Your task to perform on an android device: check google app version Image 0: 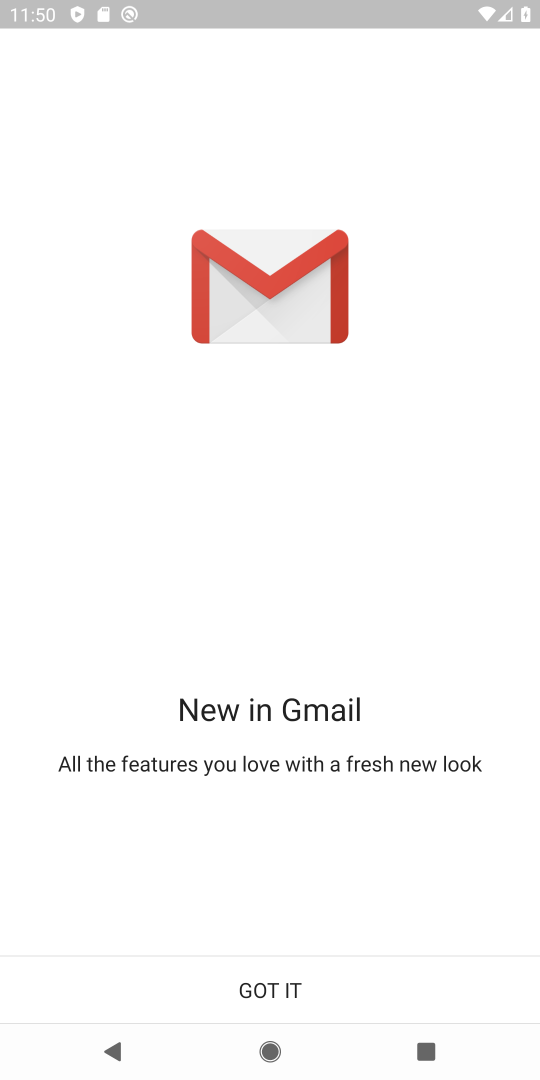
Step 0: press home button
Your task to perform on an android device: check google app version Image 1: 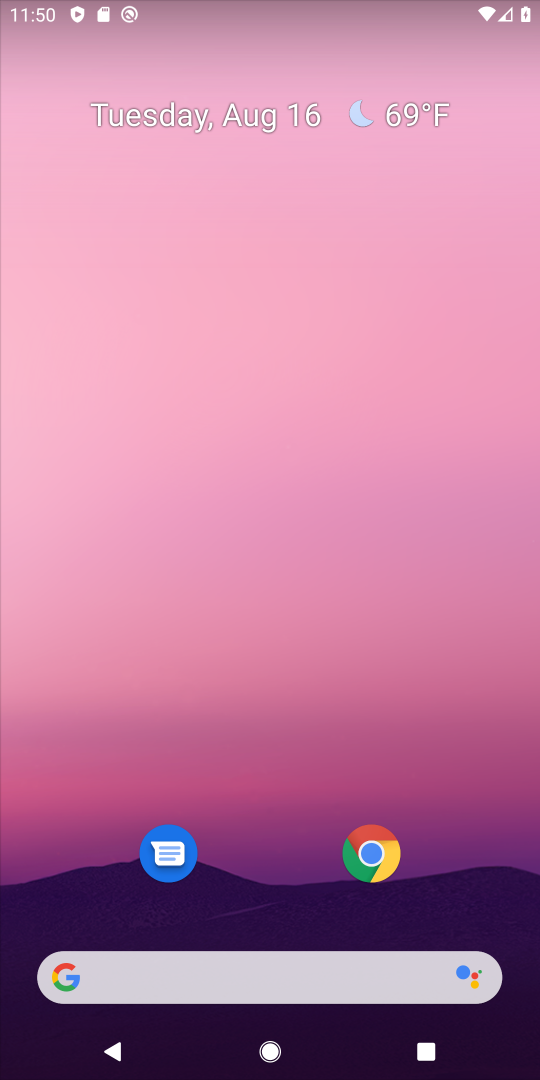
Step 1: drag from (342, 898) to (304, 495)
Your task to perform on an android device: check google app version Image 2: 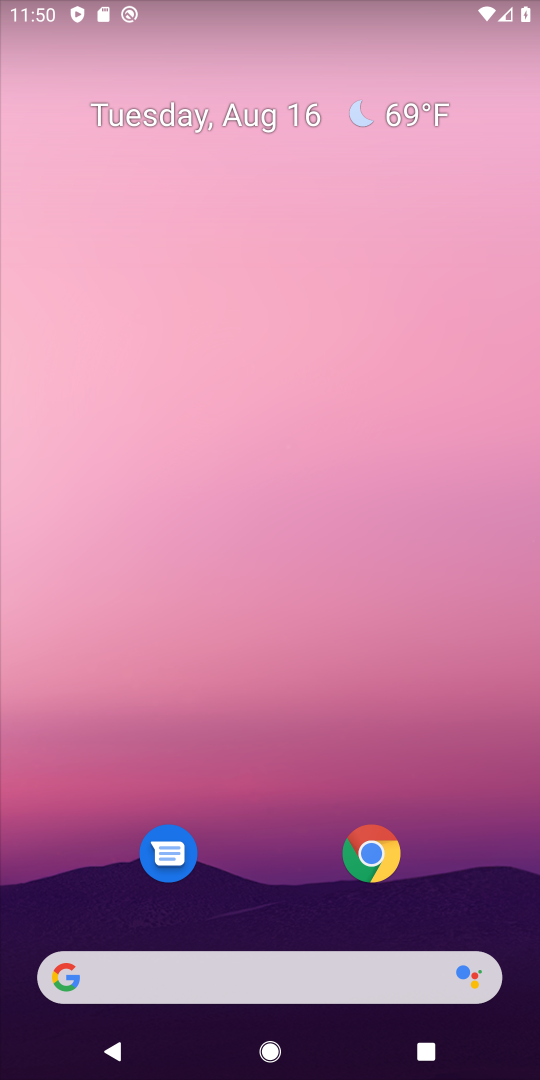
Step 2: drag from (208, 924) to (233, 396)
Your task to perform on an android device: check google app version Image 3: 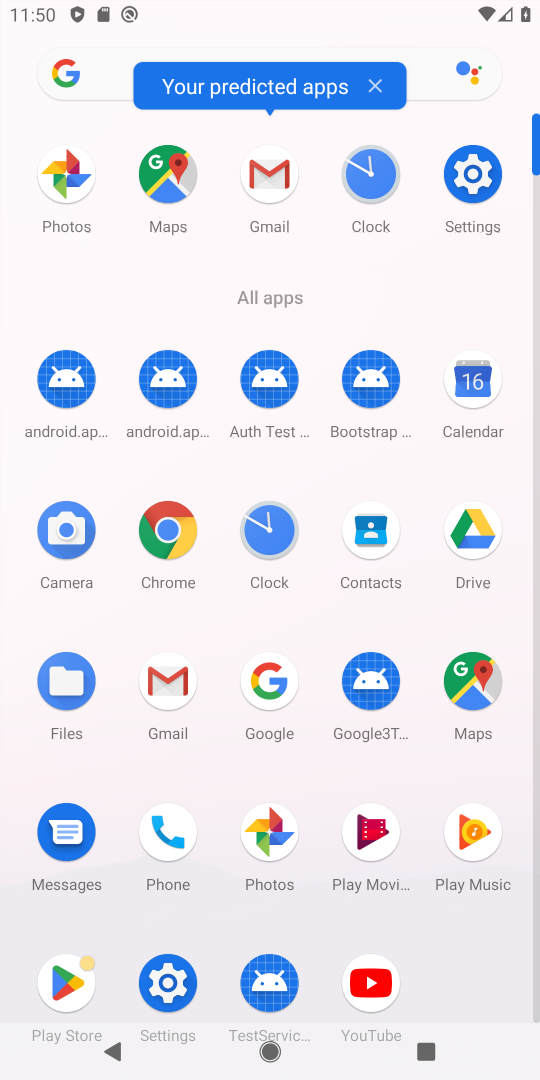
Step 3: click (250, 702)
Your task to perform on an android device: check google app version Image 4: 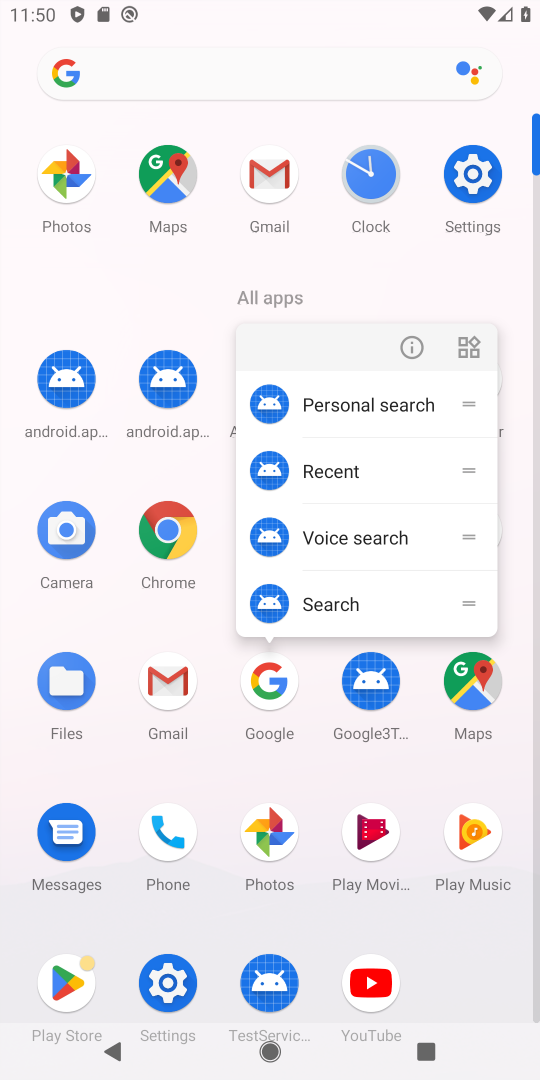
Step 4: click (412, 343)
Your task to perform on an android device: check google app version Image 5: 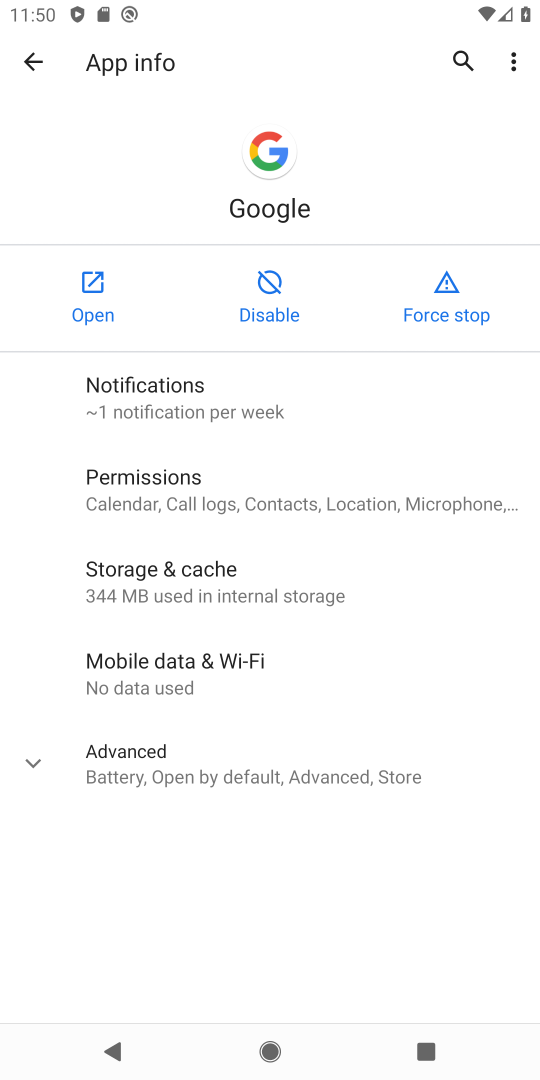
Step 5: click (162, 759)
Your task to perform on an android device: check google app version Image 6: 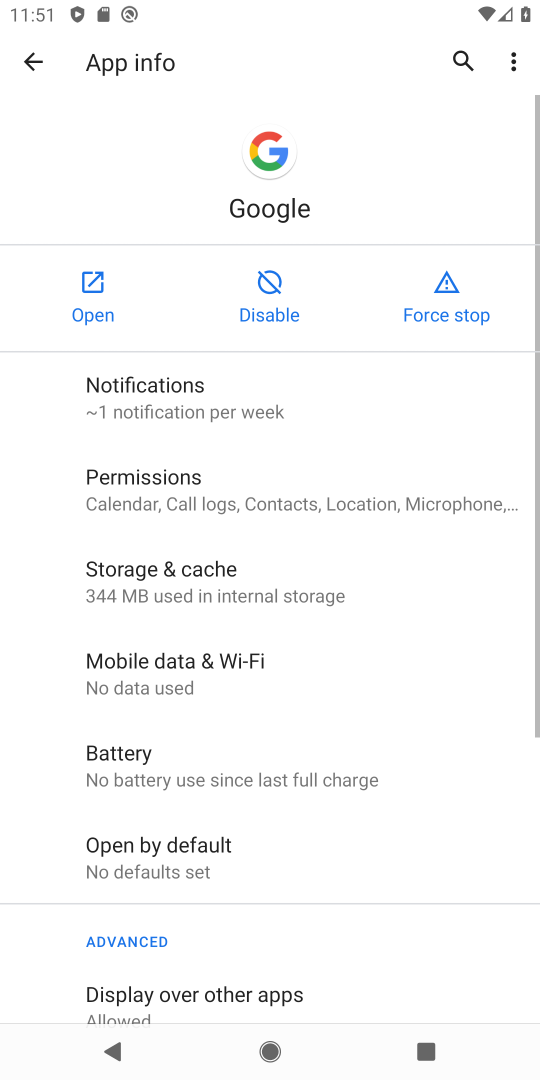
Step 6: task complete